Your task to perform on an android device: Open Google Chrome Image 0: 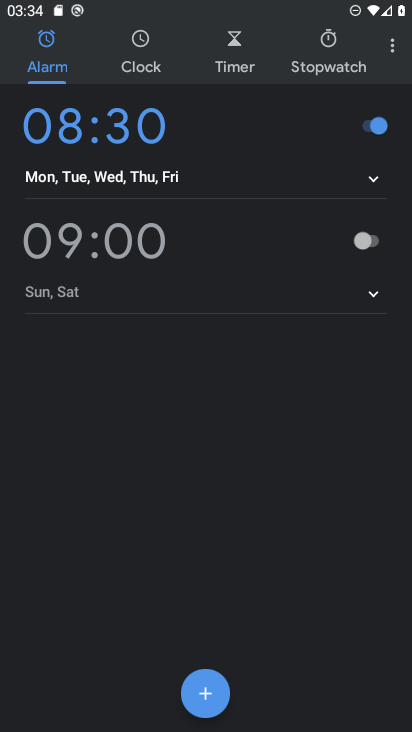
Step 0: press home button
Your task to perform on an android device: Open Google Chrome Image 1: 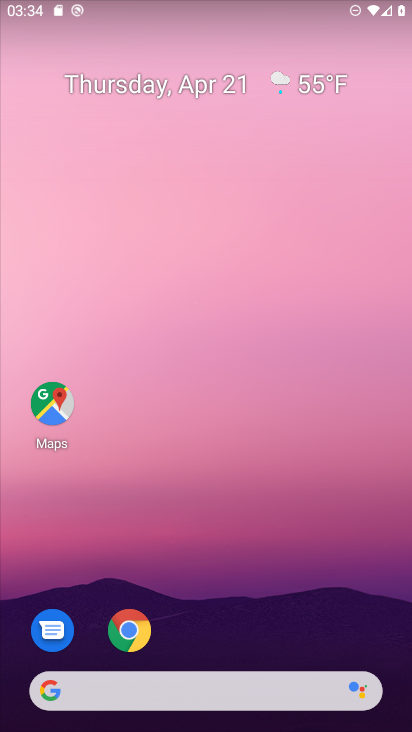
Step 1: click (117, 620)
Your task to perform on an android device: Open Google Chrome Image 2: 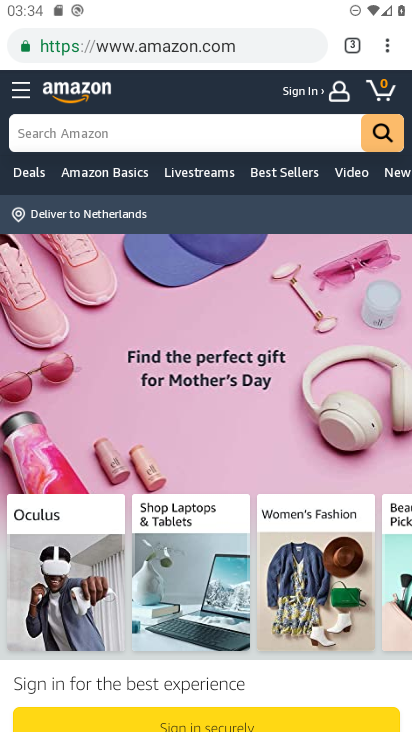
Step 2: task complete